Your task to perform on an android device: Open maps Image 0: 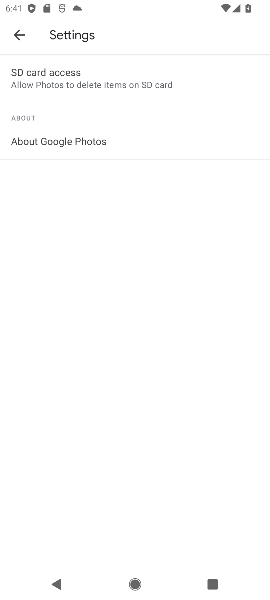
Step 0: press home button
Your task to perform on an android device: Open maps Image 1: 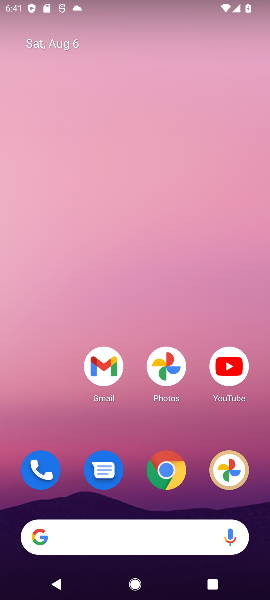
Step 1: press home button
Your task to perform on an android device: Open maps Image 2: 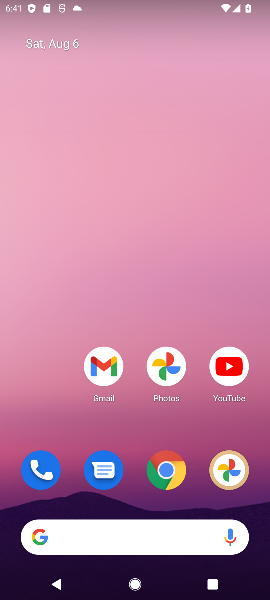
Step 2: drag from (31, 408) to (53, 219)
Your task to perform on an android device: Open maps Image 3: 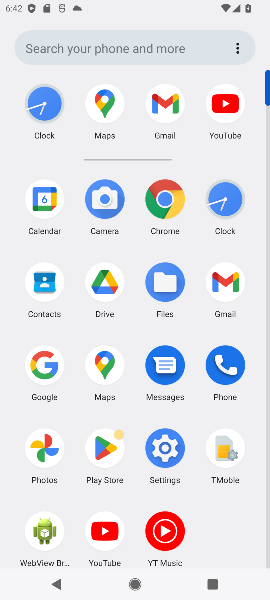
Step 3: click (84, 352)
Your task to perform on an android device: Open maps Image 4: 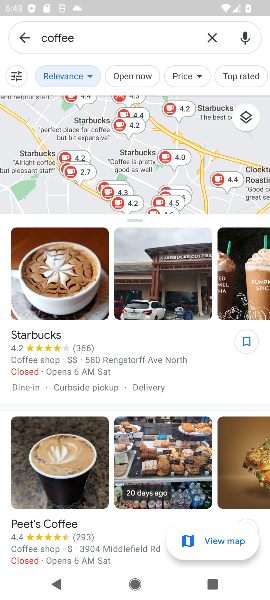
Step 4: task complete